Your task to perform on an android device: turn off location Image 0: 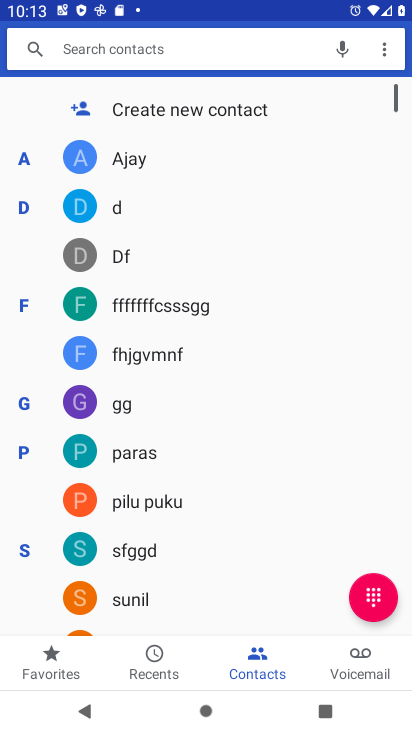
Step 0: press home button
Your task to perform on an android device: turn off location Image 1: 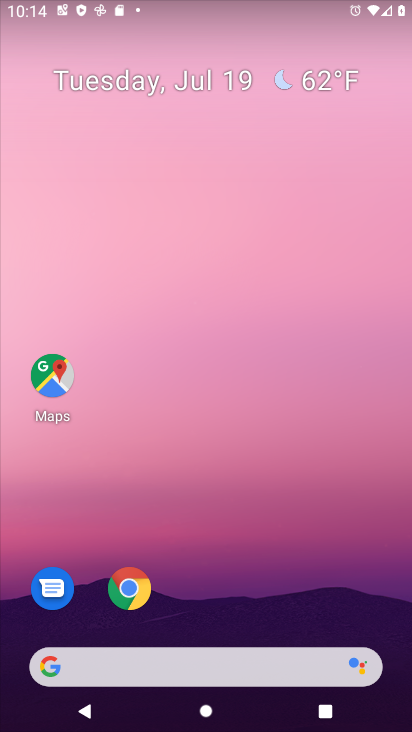
Step 1: drag from (287, 516) to (86, 25)
Your task to perform on an android device: turn off location Image 2: 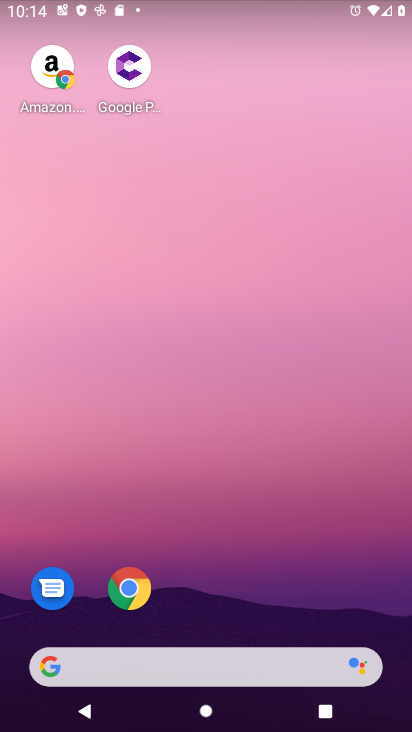
Step 2: drag from (285, 604) to (231, 123)
Your task to perform on an android device: turn off location Image 3: 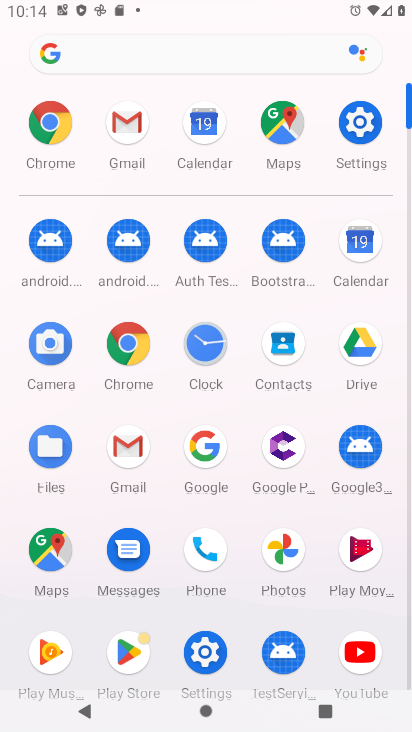
Step 3: click (354, 126)
Your task to perform on an android device: turn off location Image 4: 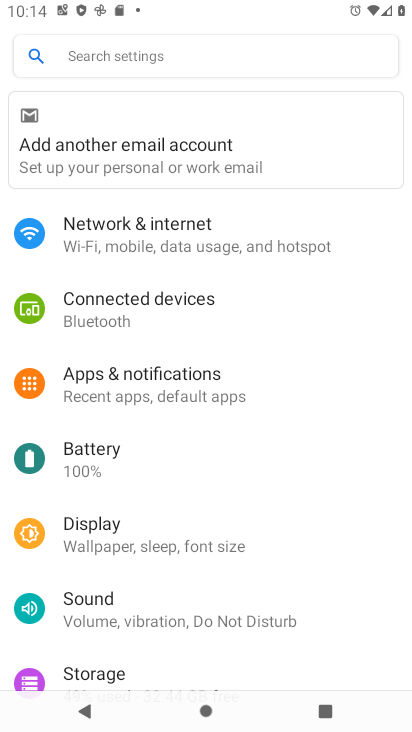
Step 4: drag from (211, 630) to (172, 260)
Your task to perform on an android device: turn off location Image 5: 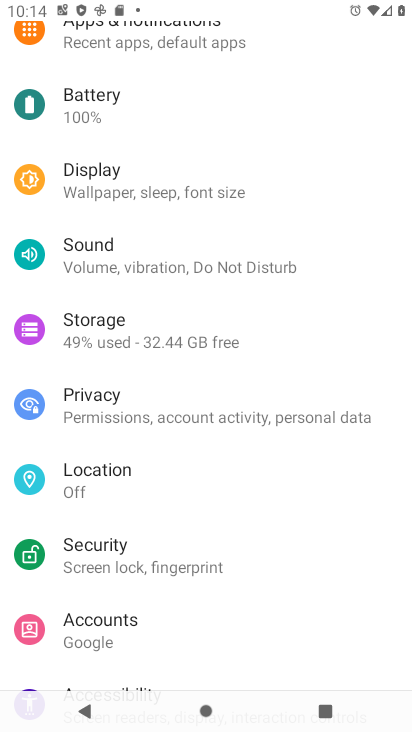
Step 5: click (129, 465)
Your task to perform on an android device: turn off location Image 6: 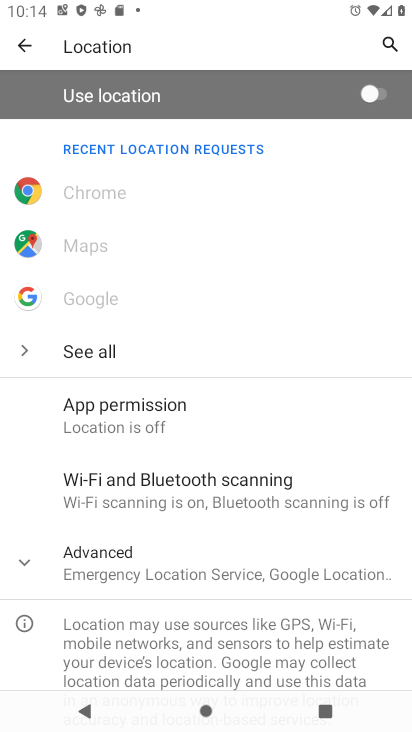
Step 6: task complete